Your task to perform on an android device: What's the weather? Image 0: 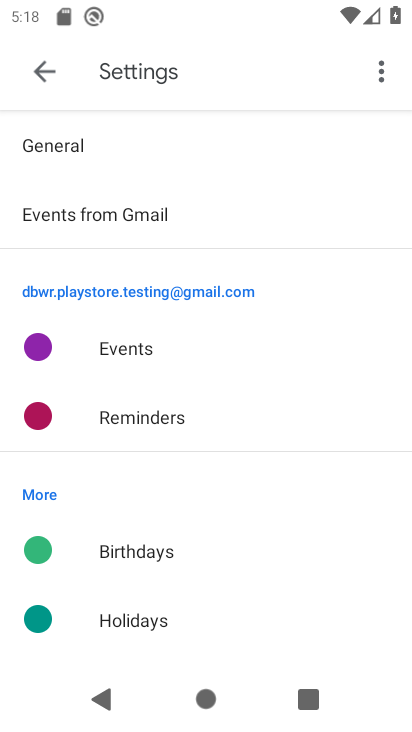
Step 0: press home button
Your task to perform on an android device: What's the weather? Image 1: 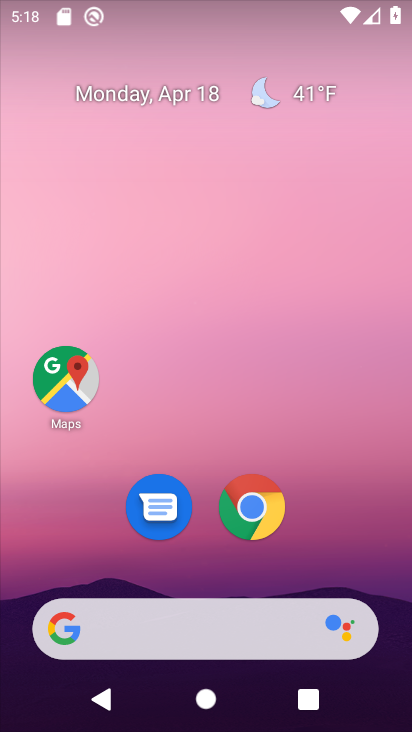
Step 1: drag from (306, 612) to (294, 24)
Your task to perform on an android device: What's the weather? Image 2: 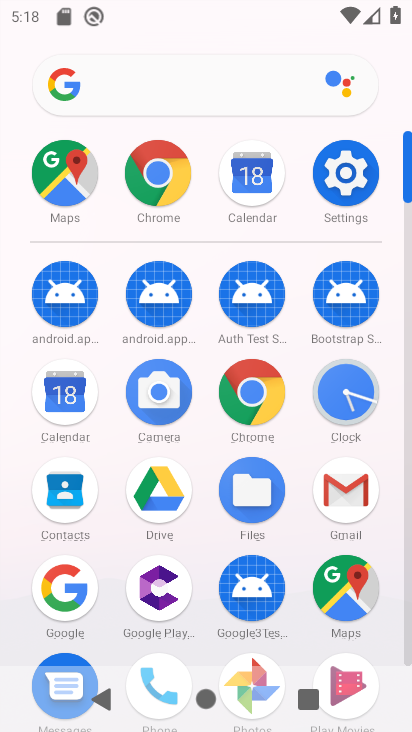
Step 2: click (258, 402)
Your task to perform on an android device: What's the weather? Image 3: 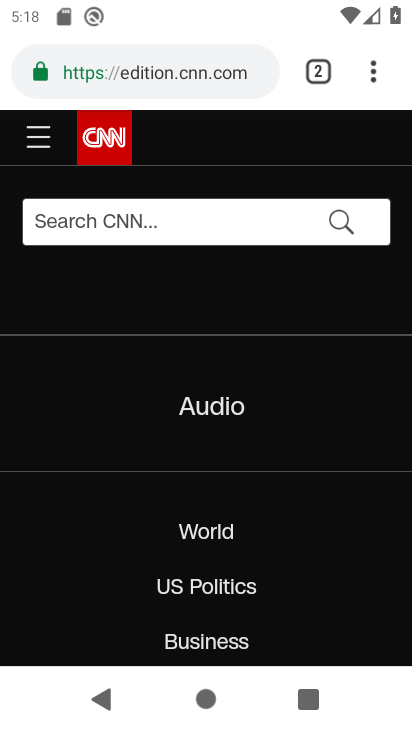
Step 3: click (207, 76)
Your task to perform on an android device: What's the weather? Image 4: 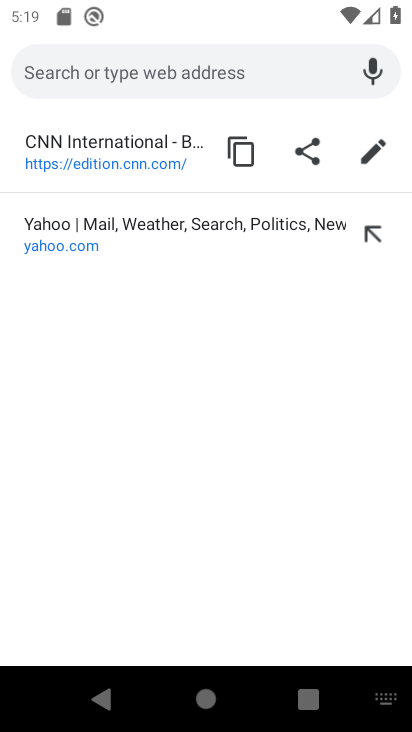
Step 4: type "weather"
Your task to perform on an android device: What's the weather? Image 5: 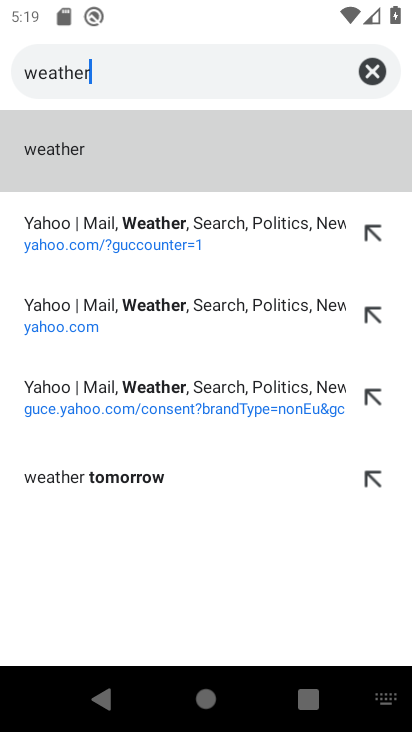
Step 5: click (67, 151)
Your task to perform on an android device: What's the weather? Image 6: 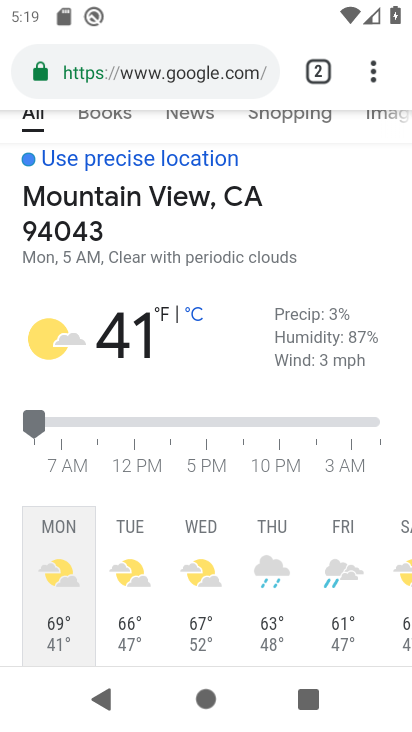
Step 6: task complete